Your task to perform on an android device: set the timer Image 0: 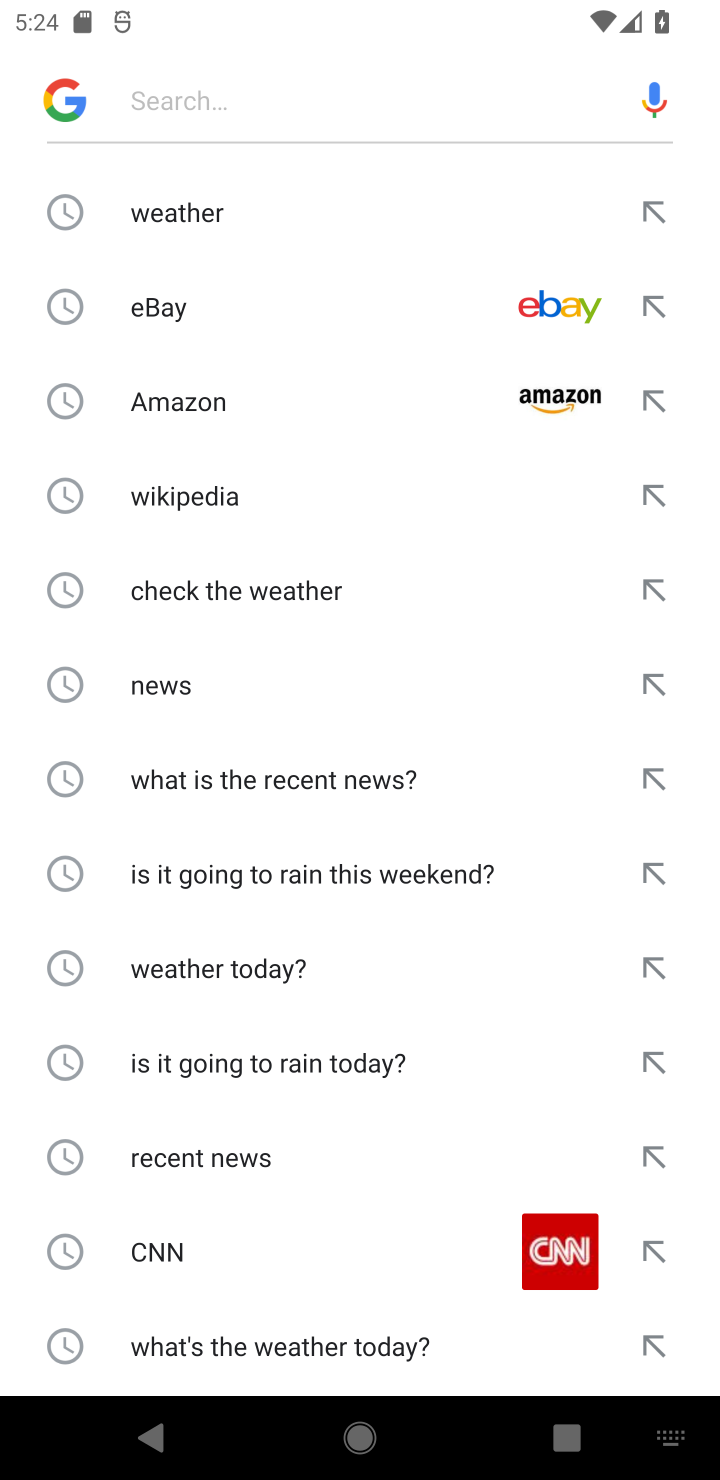
Step 0: task complete